Your task to perform on an android device: turn notification dots on Image 0: 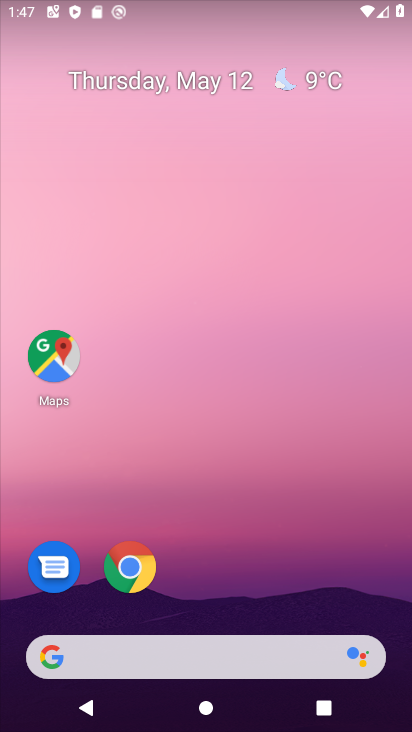
Step 0: drag from (208, 600) to (228, 114)
Your task to perform on an android device: turn notification dots on Image 1: 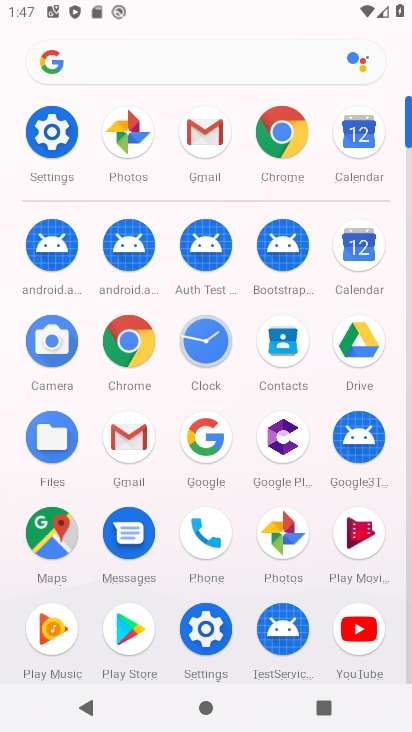
Step 1: click (63, 128)
Your task to perform on an android device: turn notification dots on Image 2: 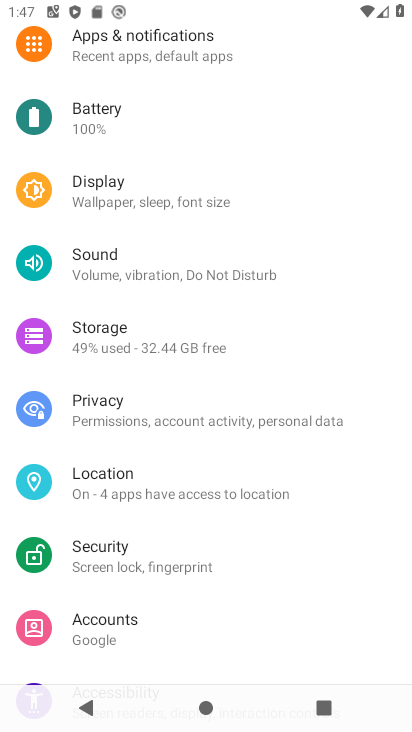
Step 2: click (121, 34)
Your task to perform on an android device: turn notification dots on Image 3: 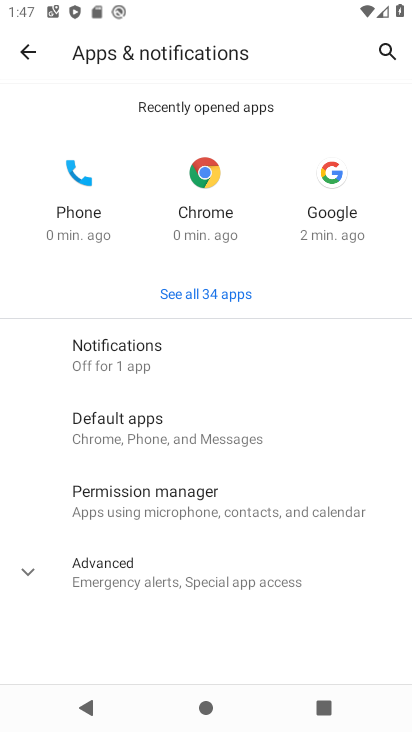
Step 3: click (156, 357)
Your task to perform on an android device: turn notification dots on Image 4: 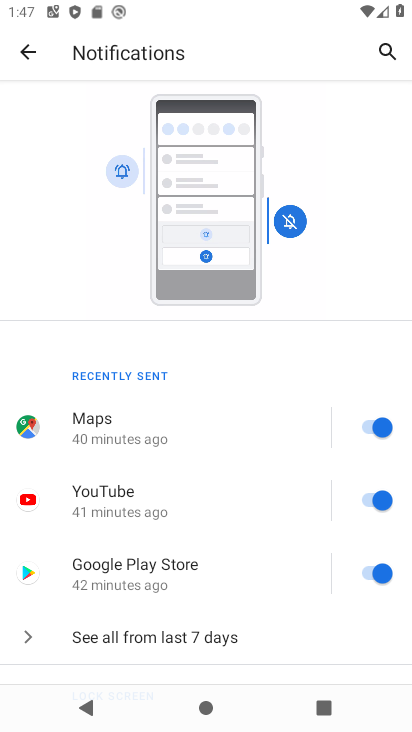
Step 4: drag from (219, 590) to (231, 225)
Your task to perform on an android device: turn notification dots on Image 5: 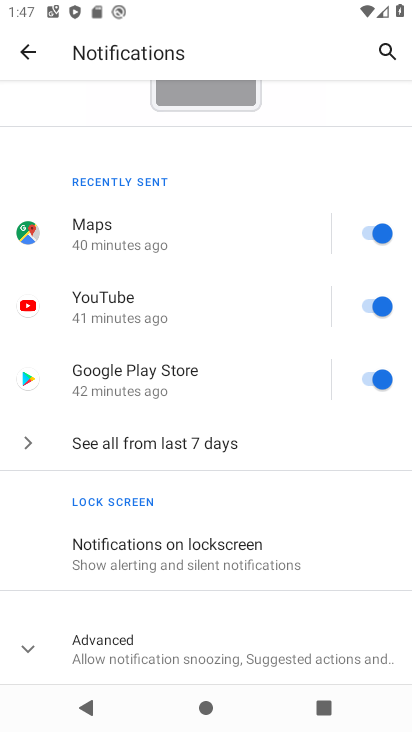
Step 5: click (126, 647)
Your task to perform on an android device: turn notification dots on Image 6: 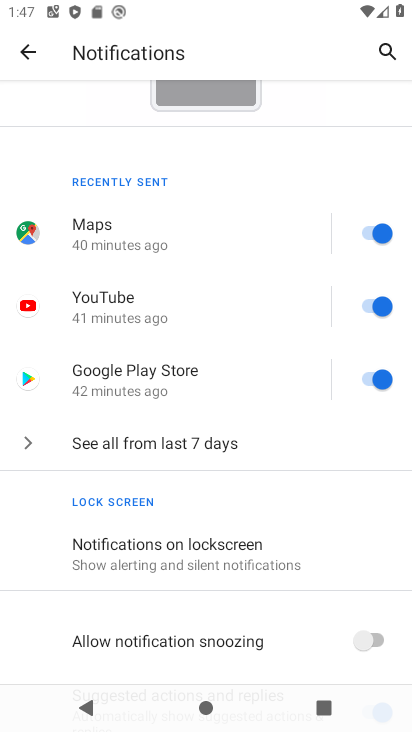
Step 6: drag from (176, 638) to (185, 283)
Your task to perform on an android device: turn notification dots on Image 7: 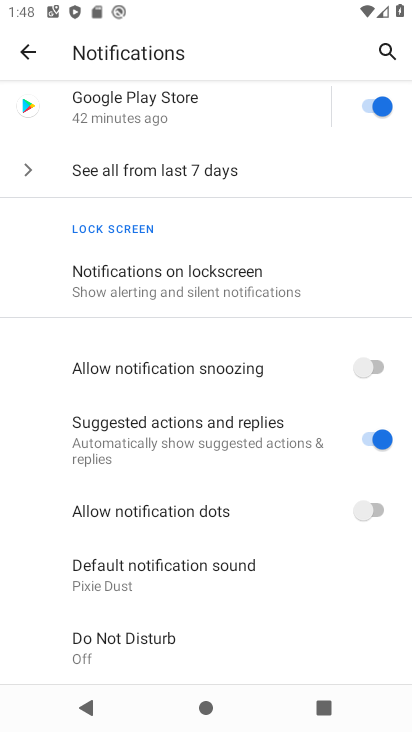
Step 7: click (368, 512)
Your task to perform on an android device: turn notification dots on Image 8: 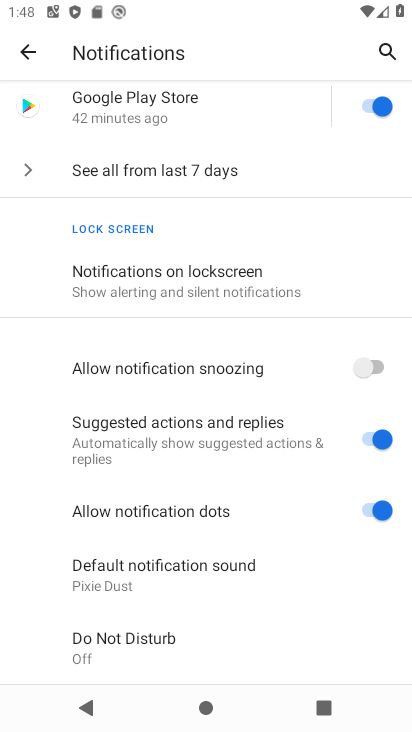
Step 8: task complete